Your task to perform on an android device: Open display settings Image 0: 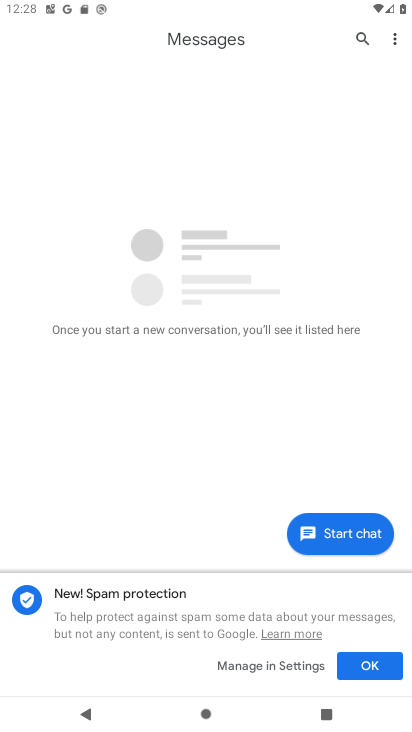
Step 0: press home button
Your task to perform on an android device: Open display settings Image 1: 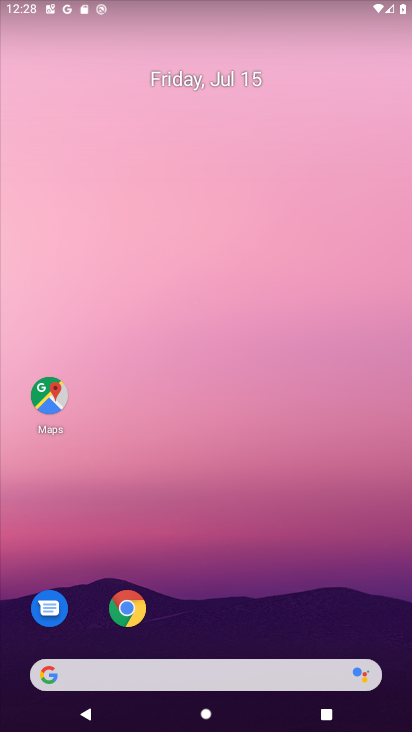
Step 1: drag from (259, 515) to (171, 54)
Your task to perform on an android device: Open display settings Image 2: 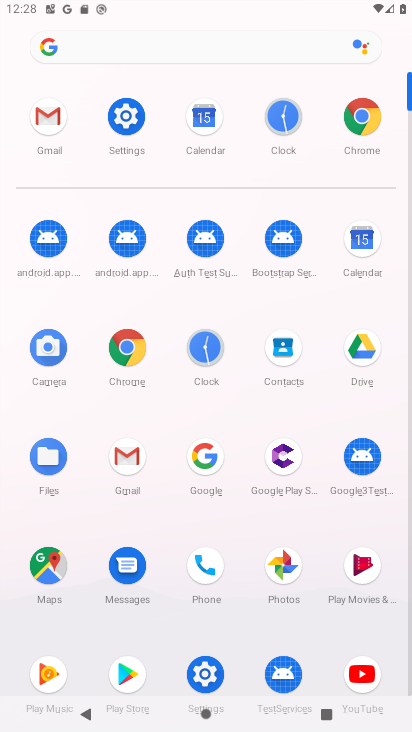
Step 2: click (129, 113)
Your task to perform on an android device: Open display settings Image 3: 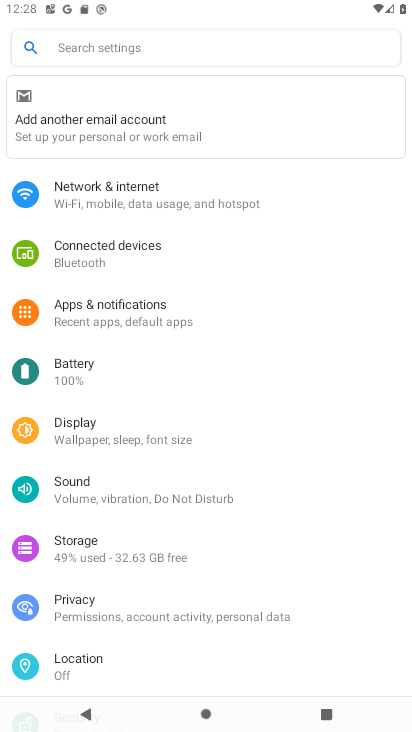
Step 3: click (74, 417)
Your task to perform on an android device: Open display settings Image 4: 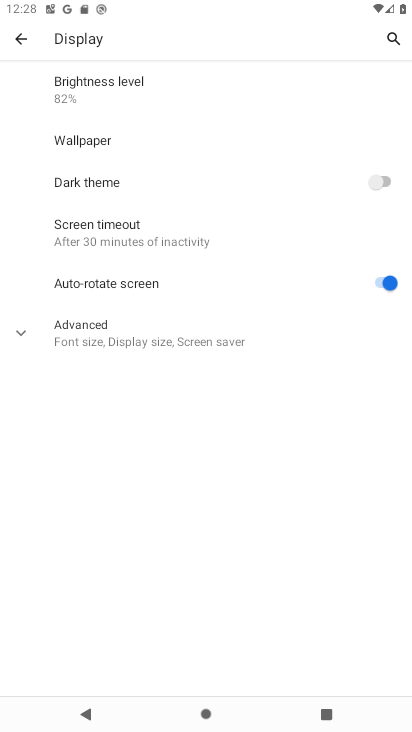
Step 4: task complete